Your task to perform on an android device: Go to Google Image 0: 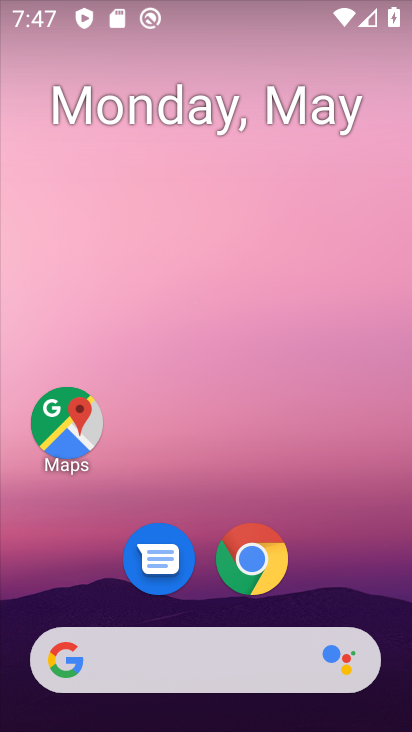
Step 0: drag from (165, 526) to (125, 131)
Your task to perform on an android device: Go to Google Image 1: 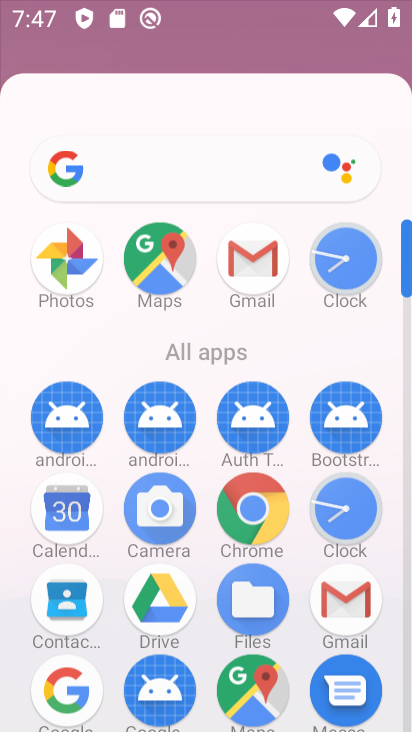
Step 1: click (86, 138)
Your task to perform on an android device: Go to Google Image 2: 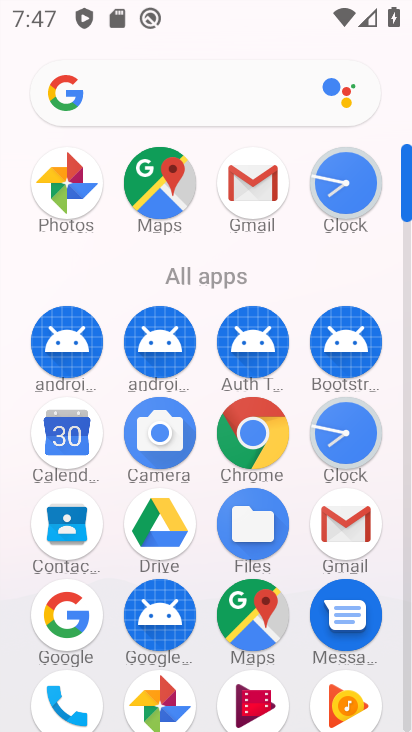
Step 2: drag from (156, 503) to (137, 38)
Your task to perform on an android device: Go to Google Image 3: 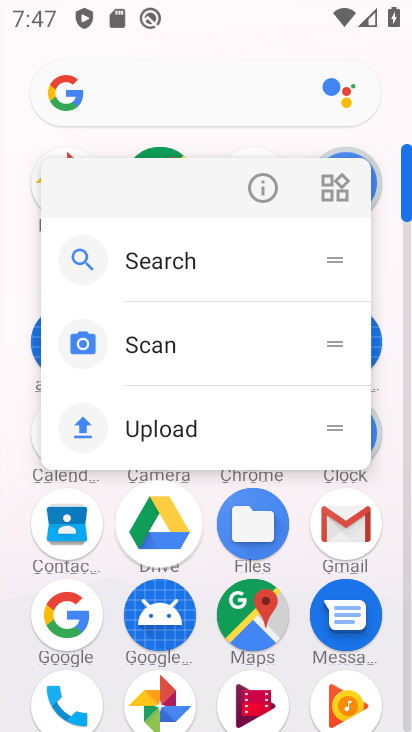
Step 3: drag from (238, 375) to (146, 220)
Your task to perform on an android device: Go to Google Image 4: 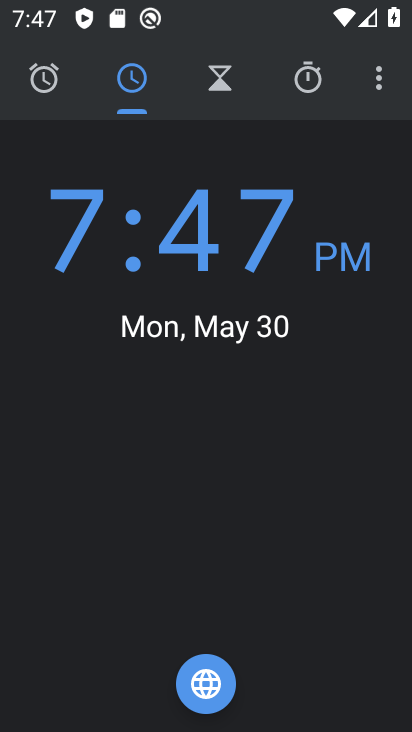
Step 4: click (381, 88)
Your task to perform on an android device: Go to Google Image 5: 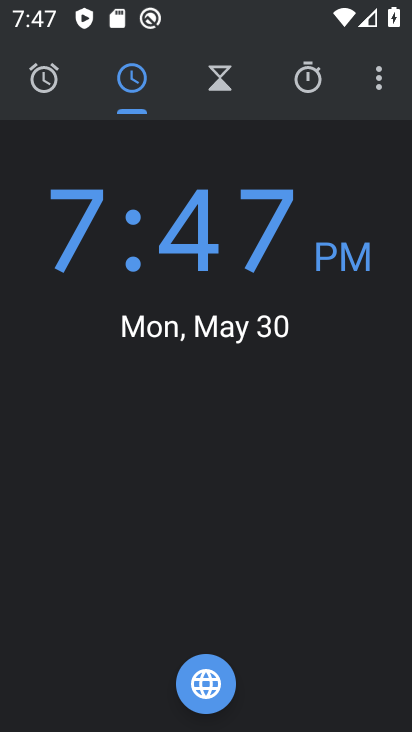
Step 5: click (382, 89)
Your task to perform on an android device: Go to Google Image 6: 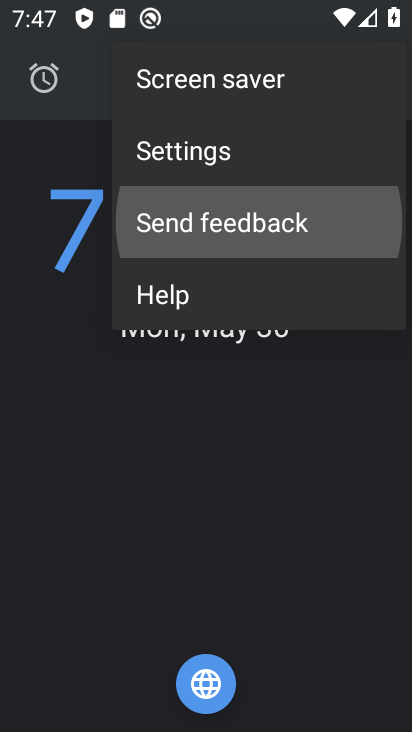
Step 6: click (380, 88)
Your task to perform on an android device: Go to Google Image 7: 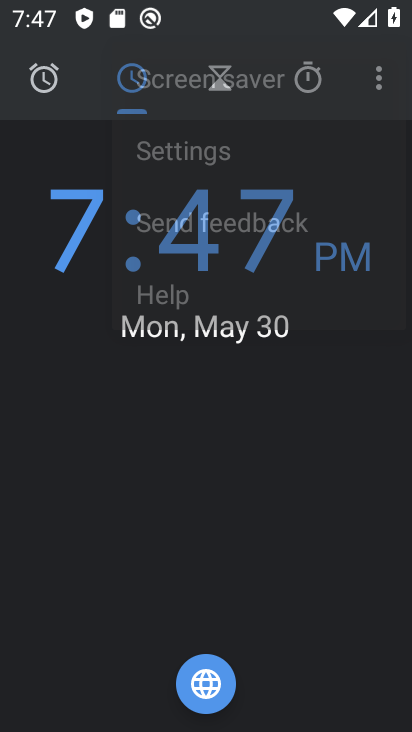
Step 7: click (372, 92)
Your task to perform on an android device: Go to Google Image 8: 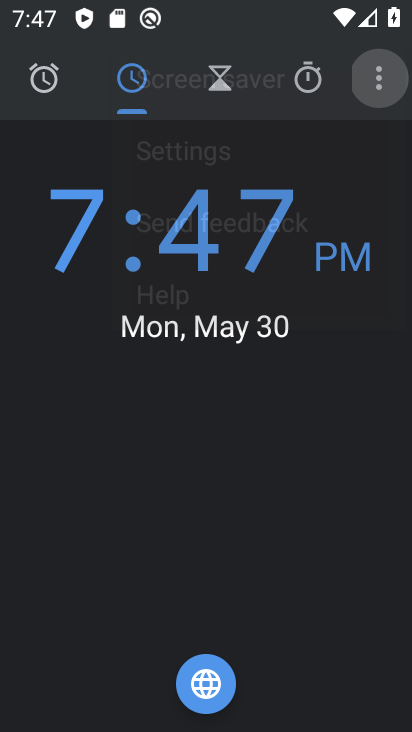
Step 8: click (372, 92)
Your task to perform on an android device: Go to Google Image 9: 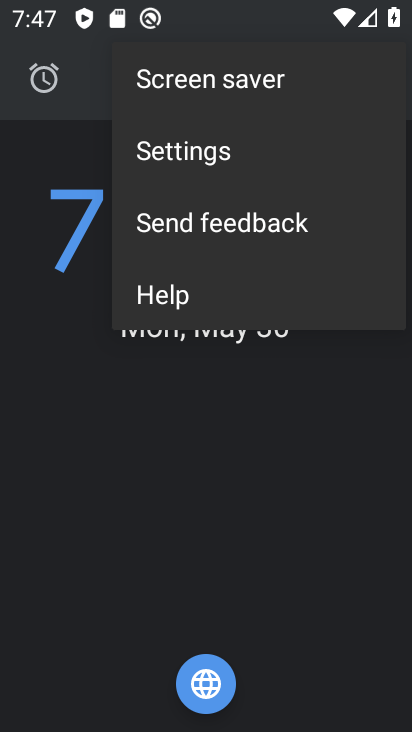
Step 9: click (171, 161)
Your task to perform on an android device: Go to Google Image 10: 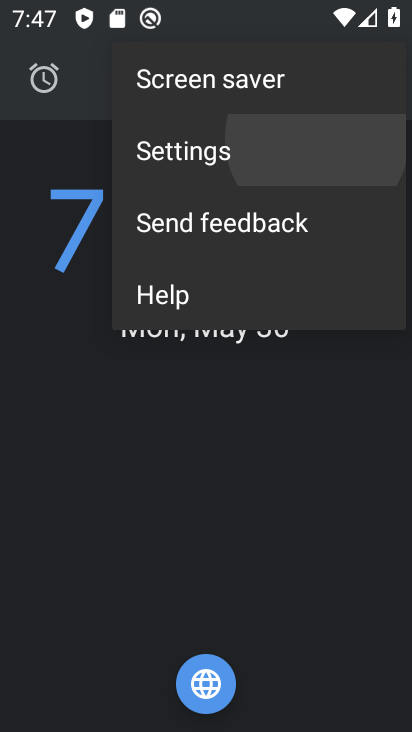
Step 10: click (174, 159)
Your task to perform on an android device: Go to Google Image 11: 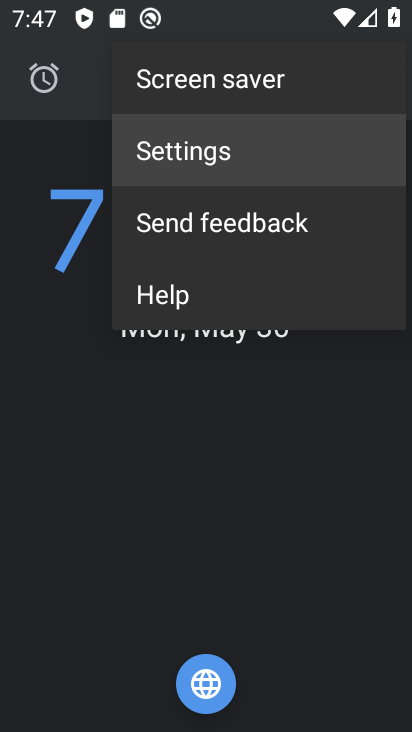
Step 11: click (174, 159)
Your task to perform on an android device: Go to Google Image 12: 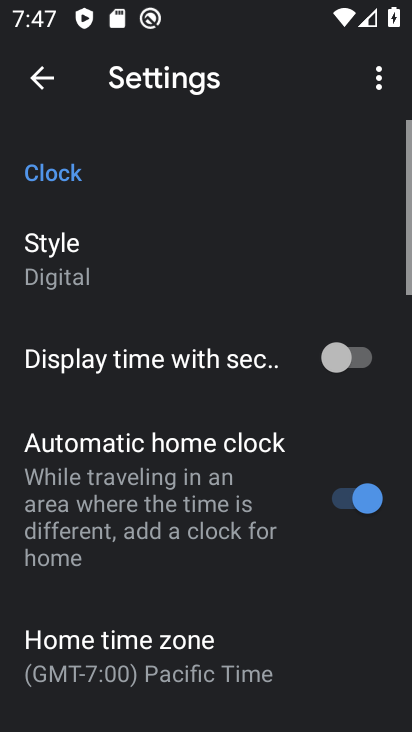
Step 12: click (175, 156)
Your task to perform on an android device: Go to Google Image 13: 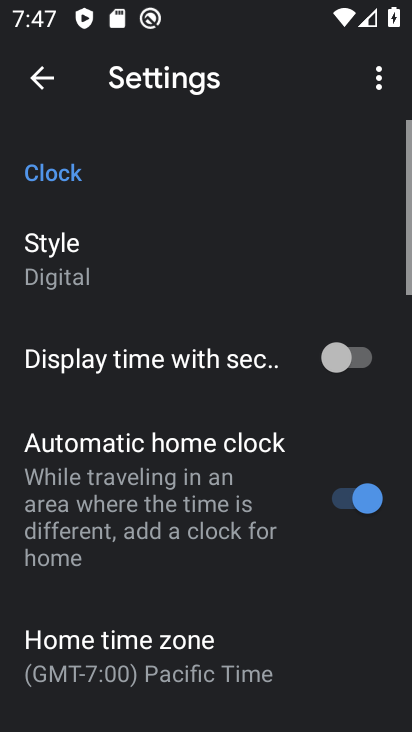
Step 13: click (175, 156)
Your task to perform on an android device: Go to Google Image 14: 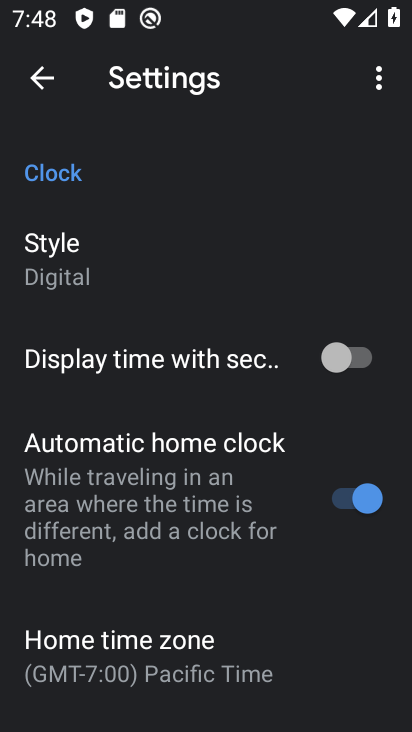
Step 14: click (43, 81)
Your task to perform on an android device: Go to Google Image 15: 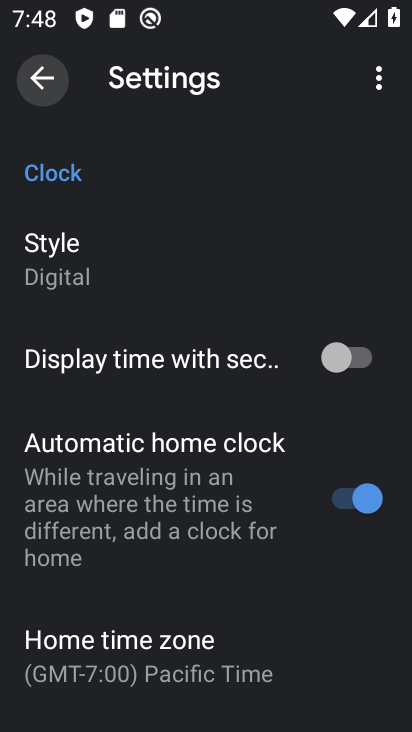
Step 15: click (43, 81)
Your task to perform on an android device: Go to Google Image 16: 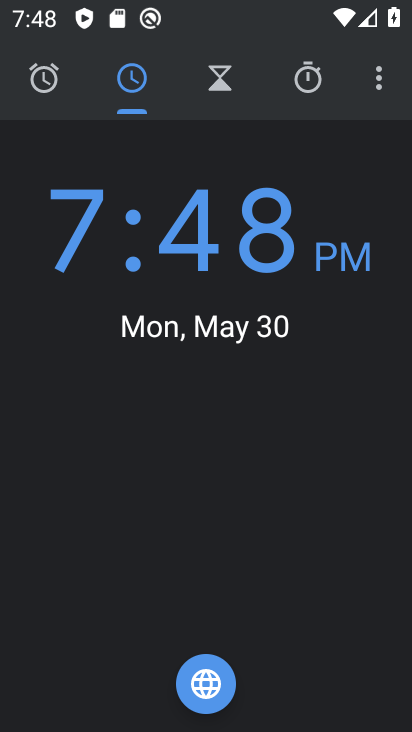
Step 16: press back button
Your task to perform on an android device: Go to Google Image 17: 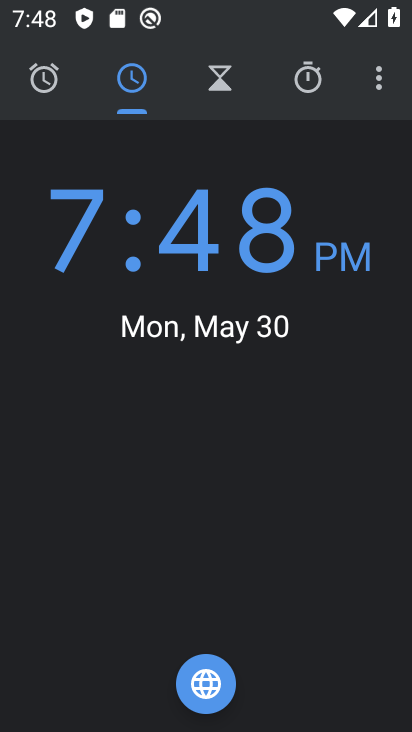
Step 17: press back button
Your task to perform on an android device: Go to Google Image 18: 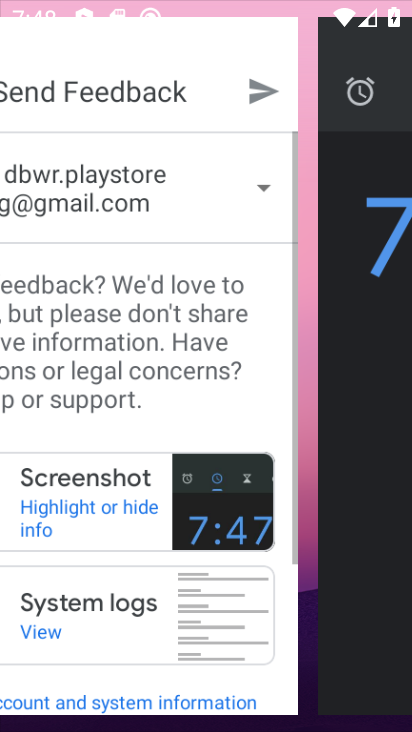
Step 18: press back button
Your task to perform on an android device: Go to Google Image 19: 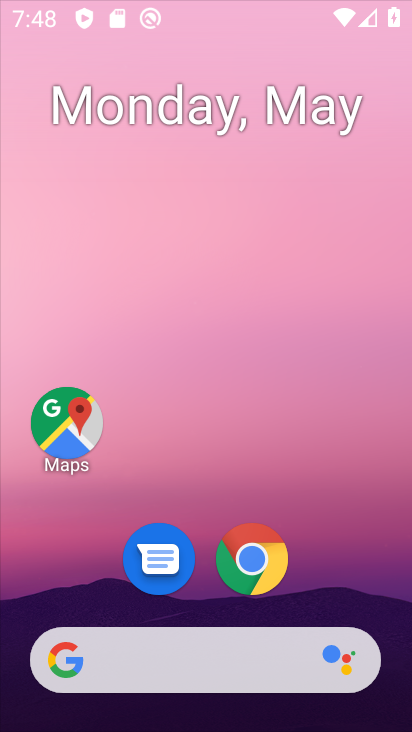
Step 19: press back button
Your task to perform on an android device: Go to Google Image 20: 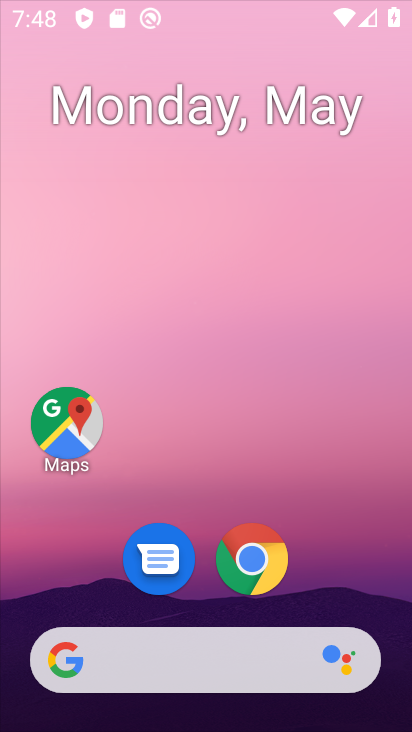
Step 20: click (15, 87)
Your task to perform on an android device: Go to Google Image 21: 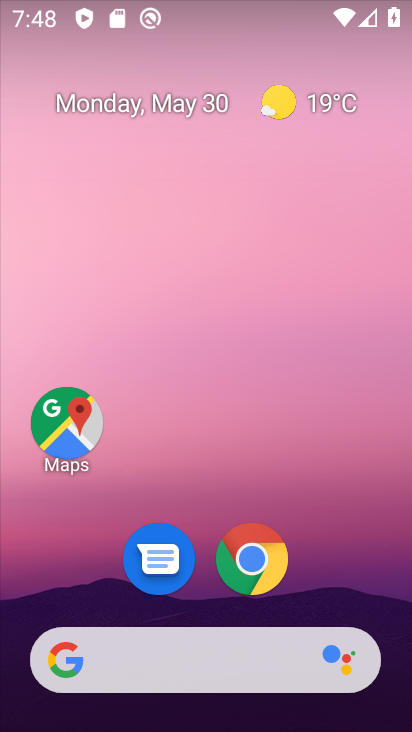
Step 21: drag from (251, 657) to (177, 191)
Your task to perform on an android device: Go to Google Image 22: 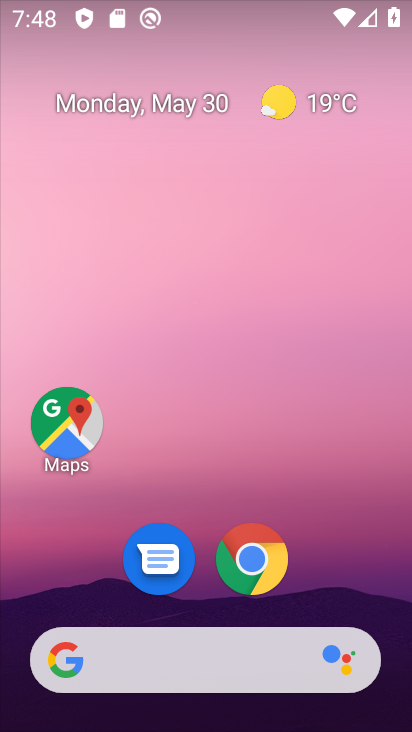
Step 22: drag from (208, 657) to (126, 91)
Your task to perform on an android device: Go to Google Image 23: 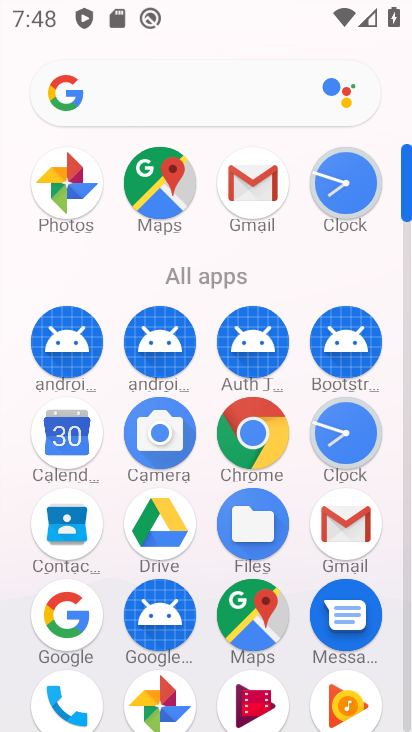
Step 23: drag from (196, 371) to (169, 38)
Your task to perform on an android device: Go to Google Image 24: 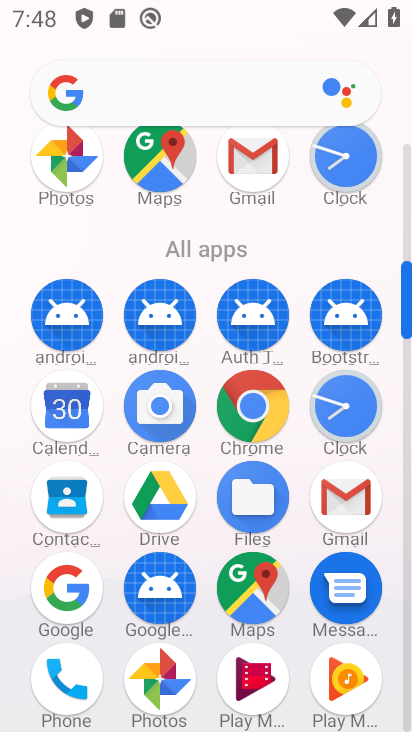
Step 24: click (55, 597)
Your task to perform on an android device: Go to Google Image 25: 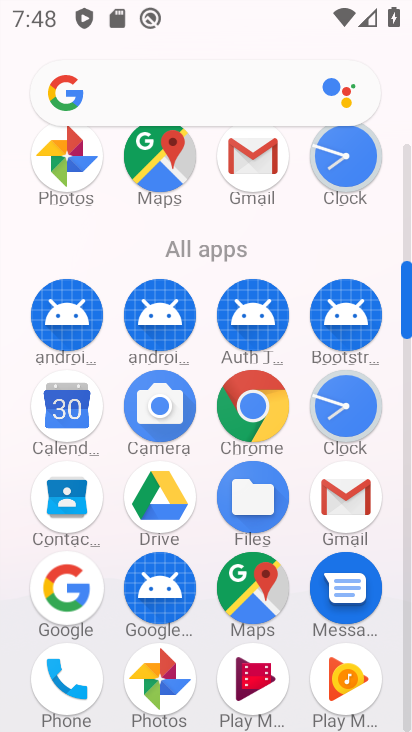
Step 25: click (56, 593)
Your task to perform on an android device: Go to Google Image 26: 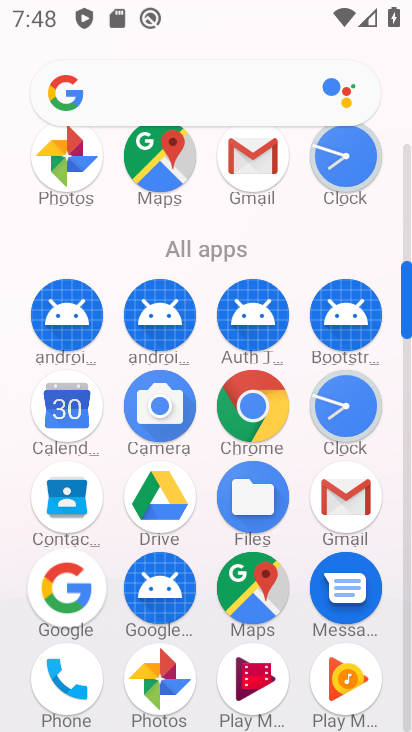
Step 26: click (53, 590)
Your task to perform on an android device: Go to Google Image 27: 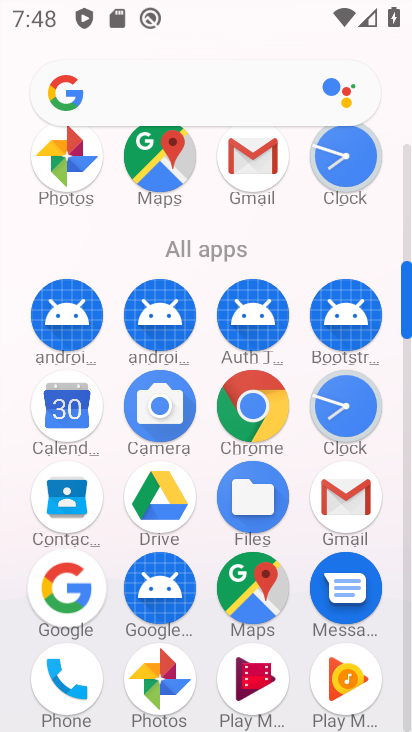
Step 27: click (52, 588)
Your task to perform on an android device: Go to Google Image 28: 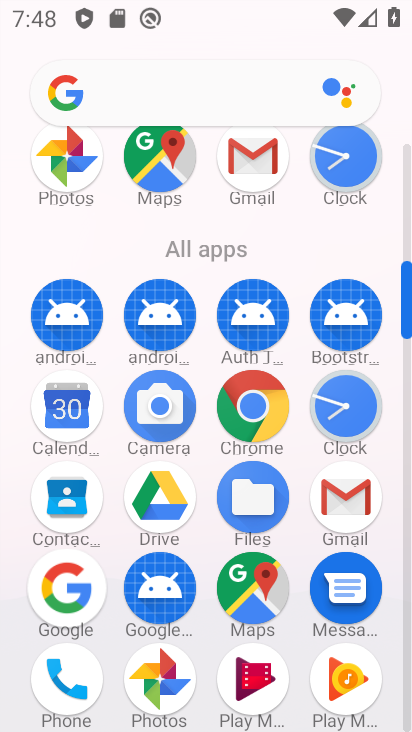
Step 28: click (51, 588)
Your task to perform on an android device: Go to Google Image 29: 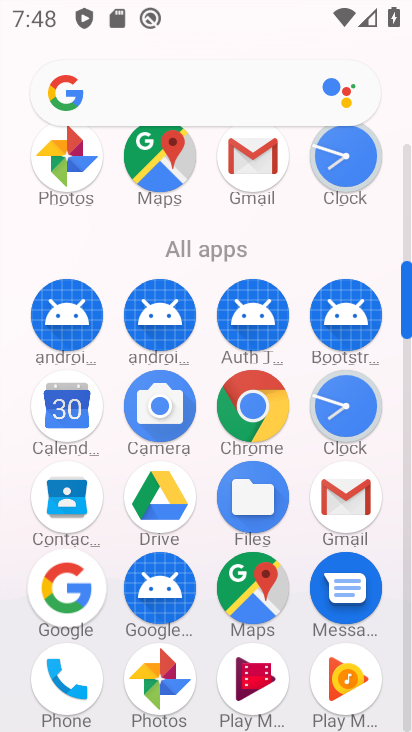
Step 29: click (51, 588)
Your task to perform on an android device: Go to Google Image 30: 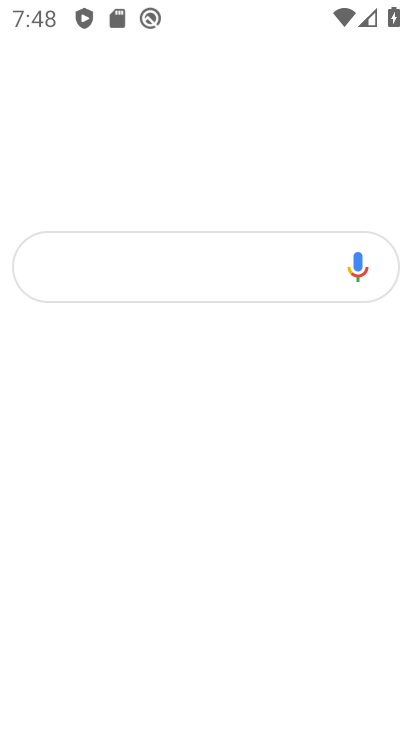
Step 30: click (48, 595)
Your task to perform on an android device: Go to Google Image 31: 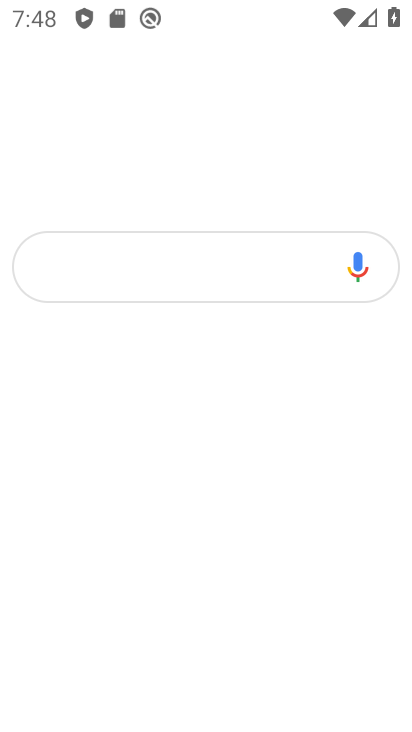
Step 31: click (66, 597)
Your task to perform on an android device: Go to Google Image 32: 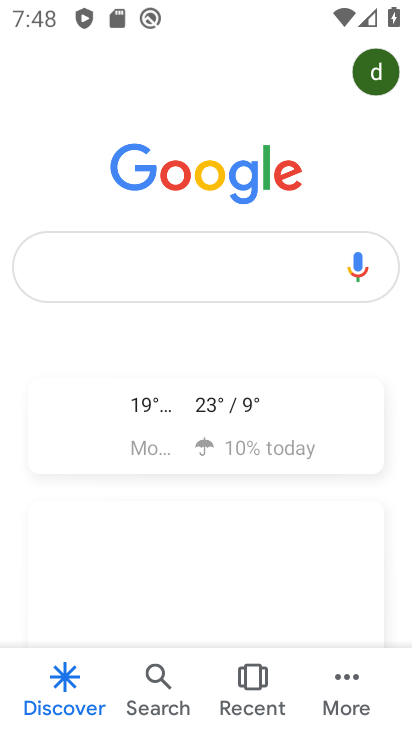
Step 32: task complete